Your task to perform on an android device: toggle notification dots Image 0: 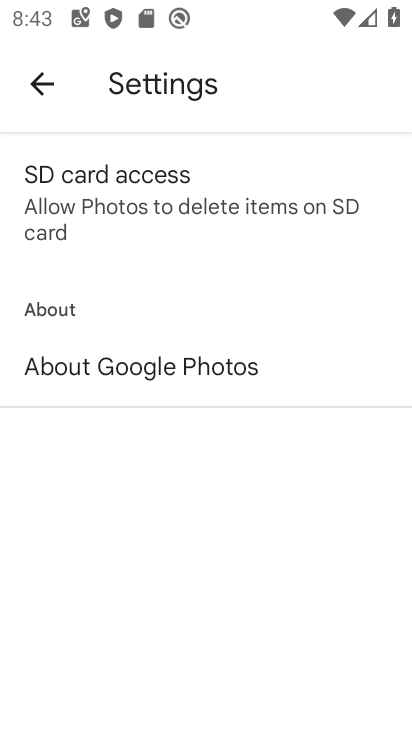
Step 0: press home button
Your task to perform on an android device: toggle notification dots Image 1: 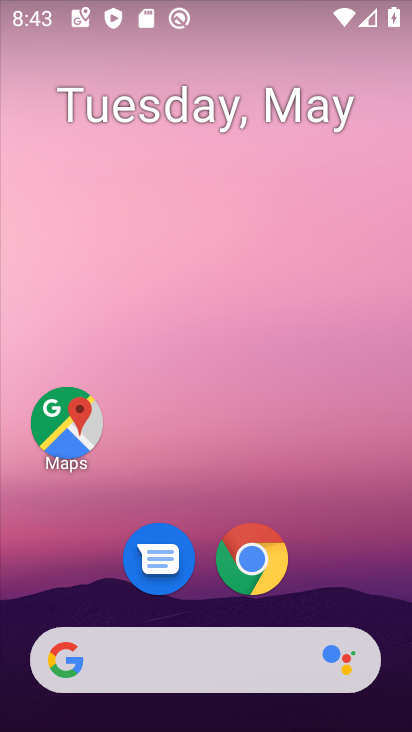
Step 1: drag from (324, 544) to (193, 80)
Your task to perform on an android device: toggle notification dots Image 2: 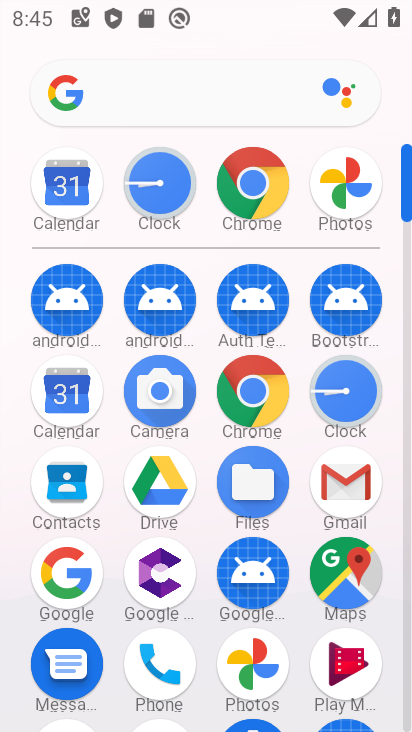
Step 2: drag from (390, 595) to (320, 214)
Your task to perform on an android device: toggle notification dots Image 3: 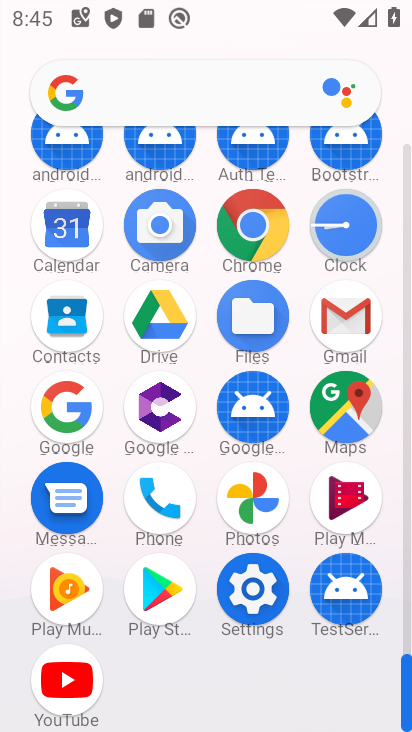
Step 3: click (259, 581)
Your task to perform on an android device: toggle notification dots Image 4: 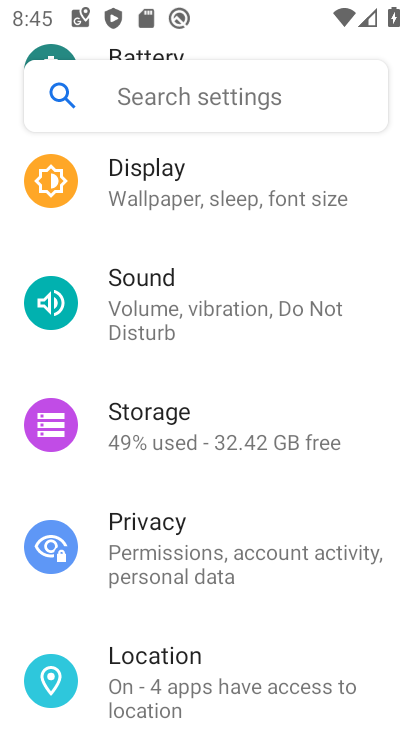
Step 4: drag from (231, 232) to (308, 609)
Your task to perform on an android device: toggle notification dots Image 5: 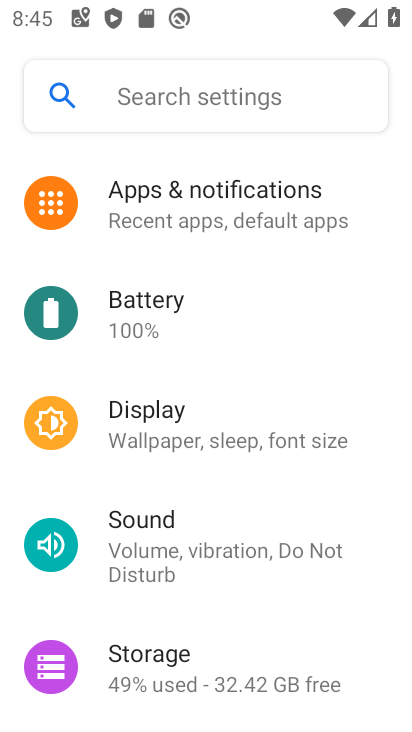
Step 5: click (221, 227)
Your task to perform on an android device: toggle notification dots Image 6: 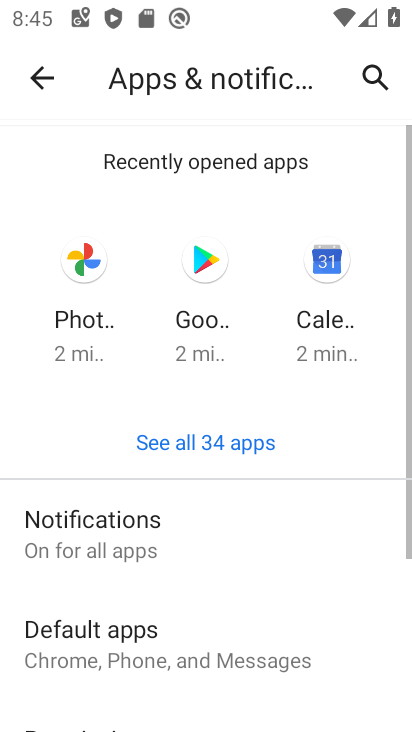
Step 6: drag from (292, 609) to (253, 201)
Your task to perform on an android device: toggle notification dots Image 7: 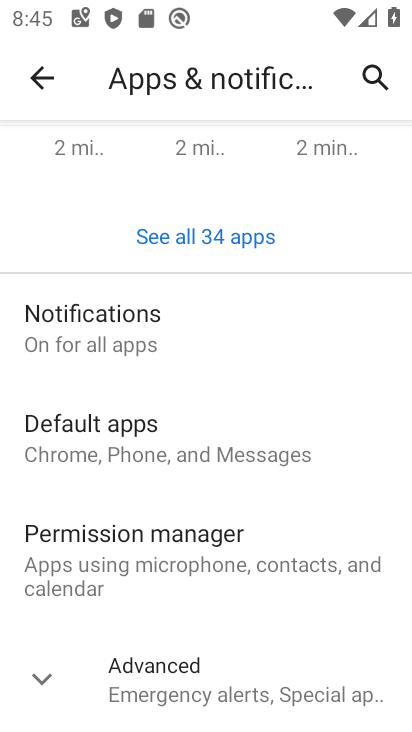
Step 7: click (208, 680)
Your task to perform on an android device: toggle notification dots Image 8: 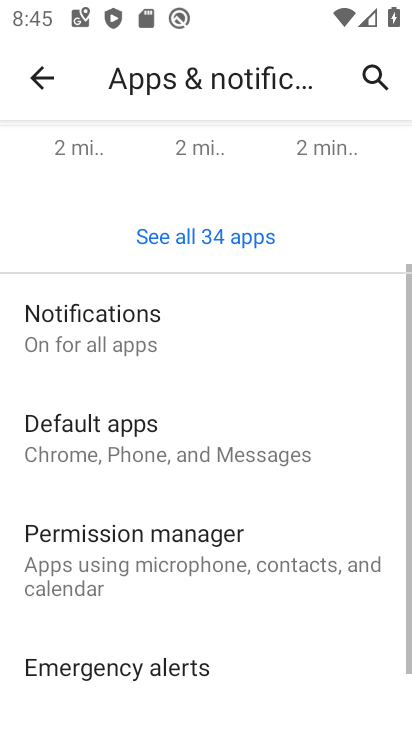
Step 8: drag from (208, 681) to (208, 242)
Your task to perform on an android device: toggle notification dots Image 9: 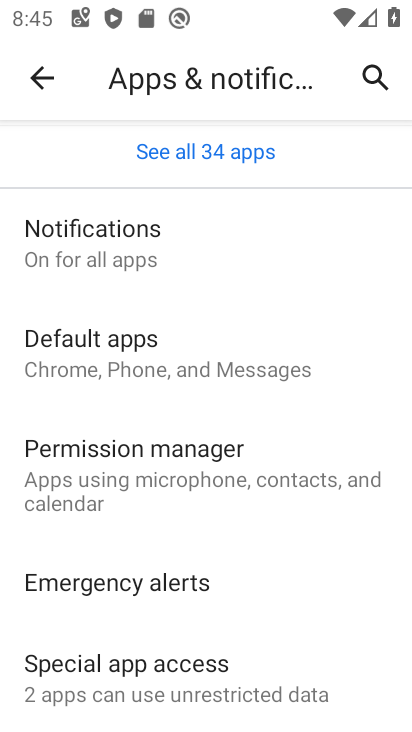
Step 9: drag from (179, 660) to (235, 373)
Your task to perform on an android device: toggle notification dots Image 10: 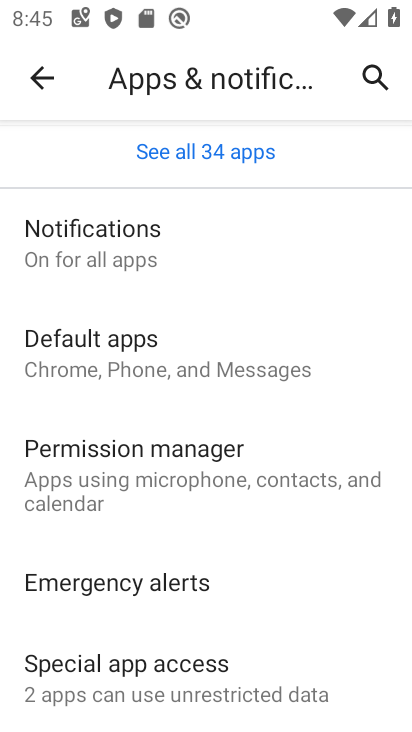
Step 10: click (94, 256)
Your task to perform on an android device: toggle notification dots Image 11: 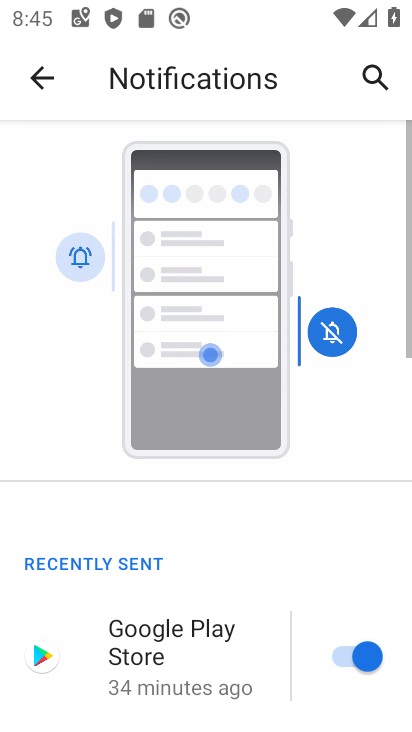
Step 11: drag from (231, 571) to (197, 4)
Your task to perform on an android device: toggle notification dots Image 12: 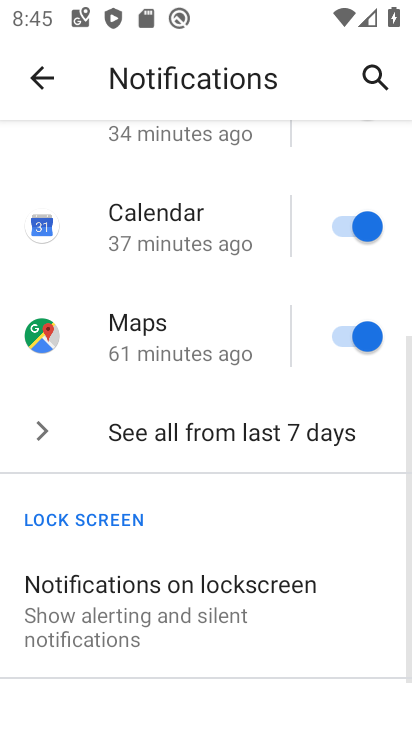
Step 12: drag from (192, 556) to (218, 96)
Your task to perform on an android device: toggle notification dots Image 13: 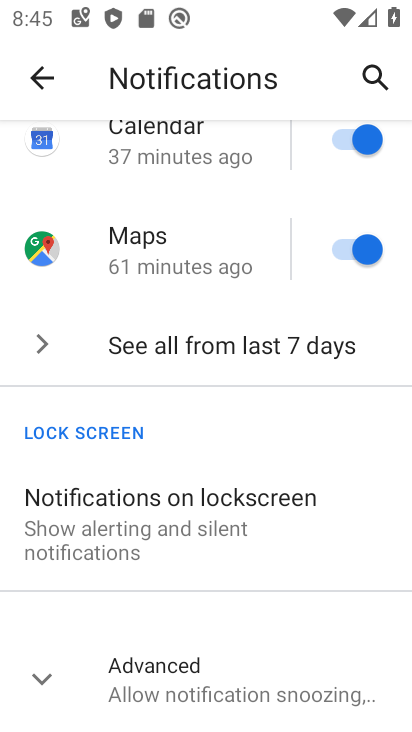
Step 13: click (205, 663)
Your task to perform on an android device: toggle notification dots Image 14: 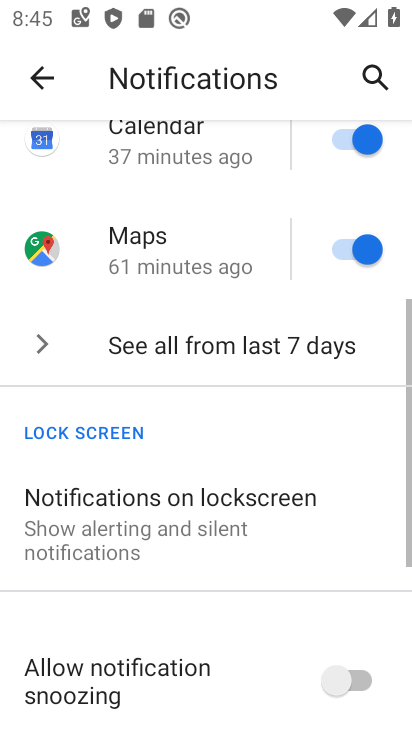
Step 14: drag from (228, 608) to (270, 177)
Your task to perform on an android device: toggle notification dots Image 15: 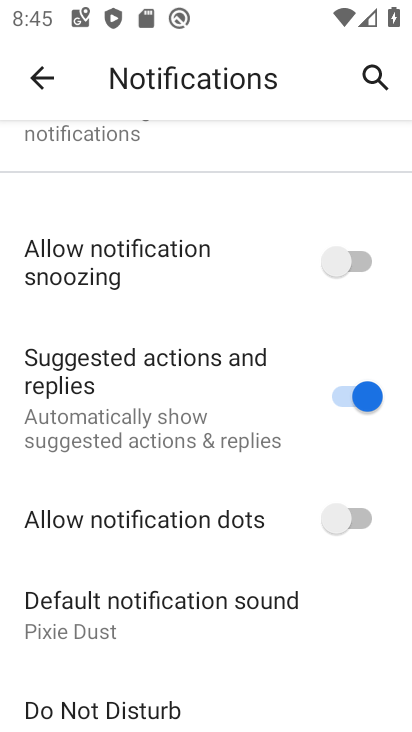
Step 15: click (363, 532)
Your task to perform on an android device: toggle notification dots Image 16: 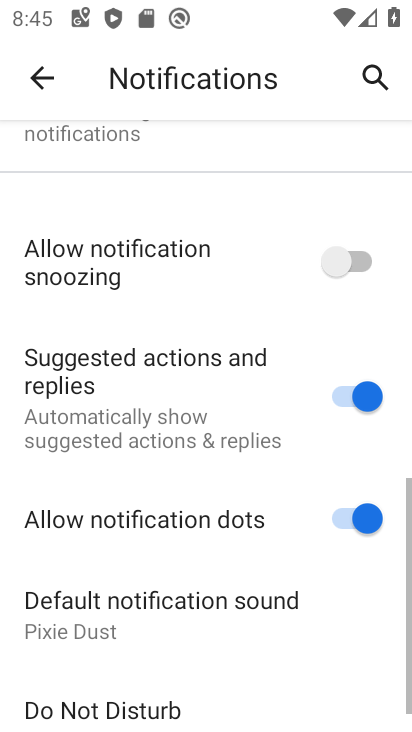
Step 16: task complete